Your task to perform on an android device: set the stopwatch Image 0: 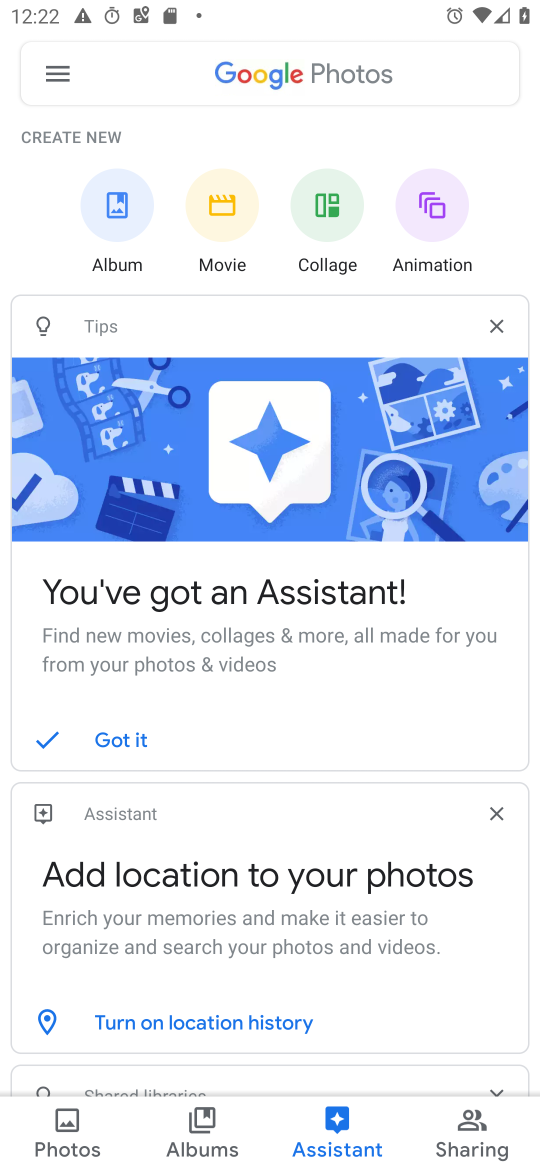
Step 0: press home button
Your task to perform on an android device: set the stopwatch Image 1: 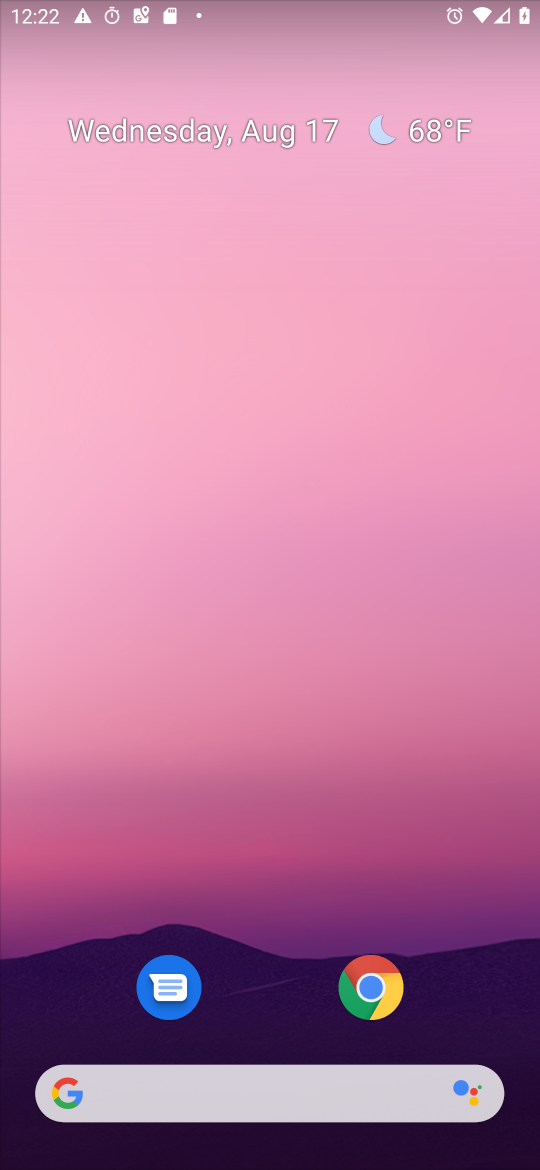
Step 1: drag from (19, 1138) to (410, 404)
Your task to perform on an android device: set the stopwatch Image 2: 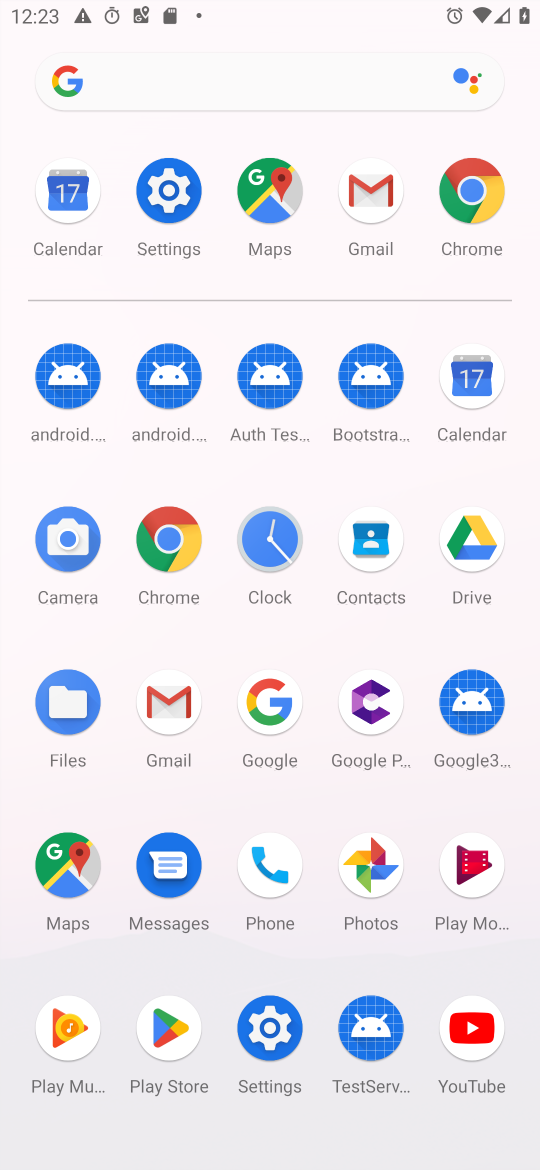
Step 2: click (260, 530)
Your task to perform on an android device: set the stopwatch Image 3: 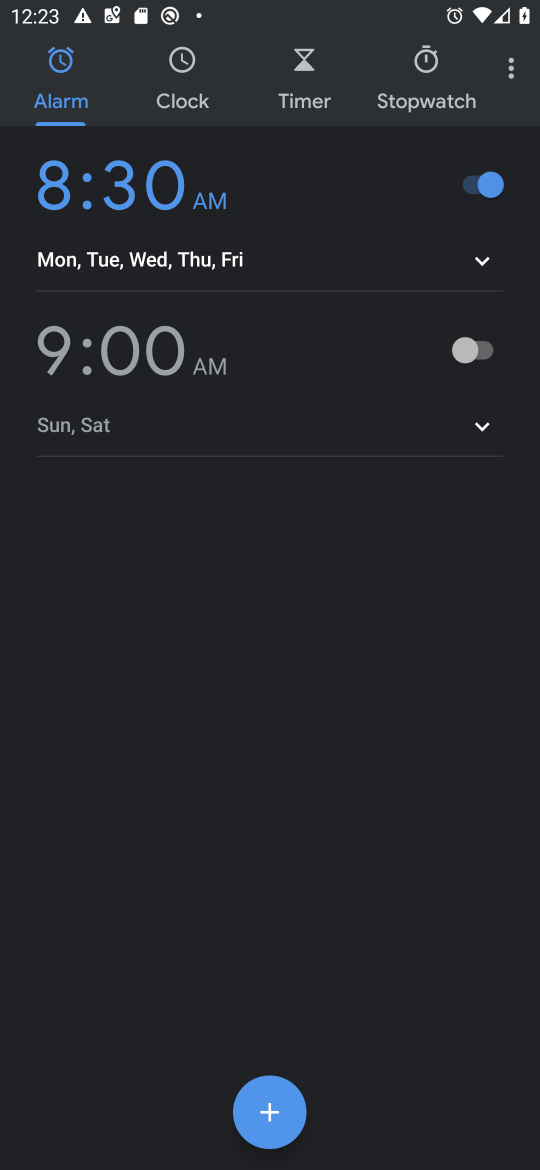
Step 3: click (386, 89)
Your task to perform on an android device: set the stopwatch Image 4: 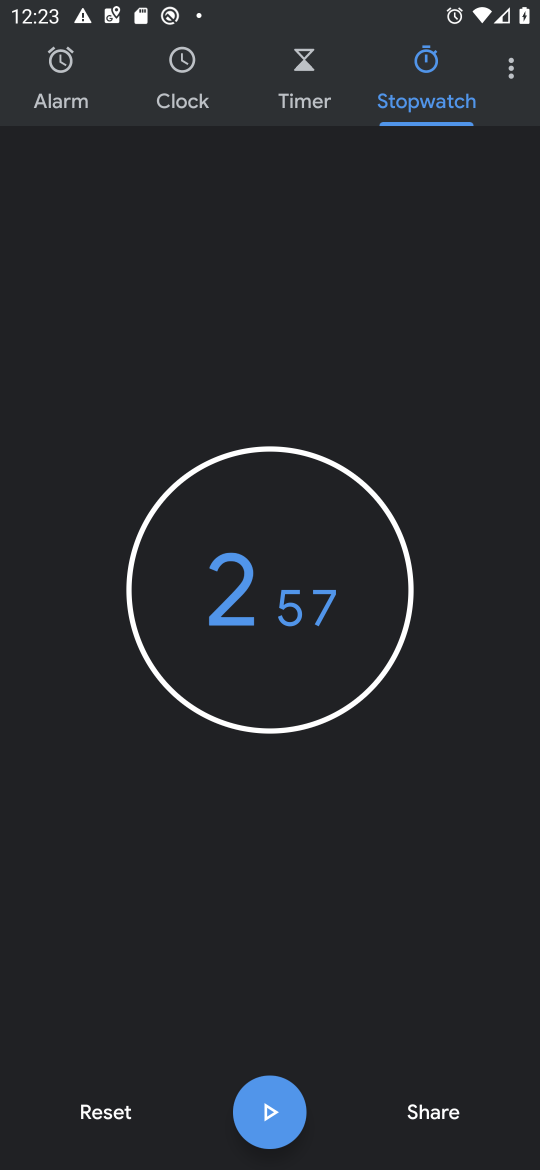
Step 4: click (273, 1098)
Your task to perform on an android device: set the stopwatch Image 5: 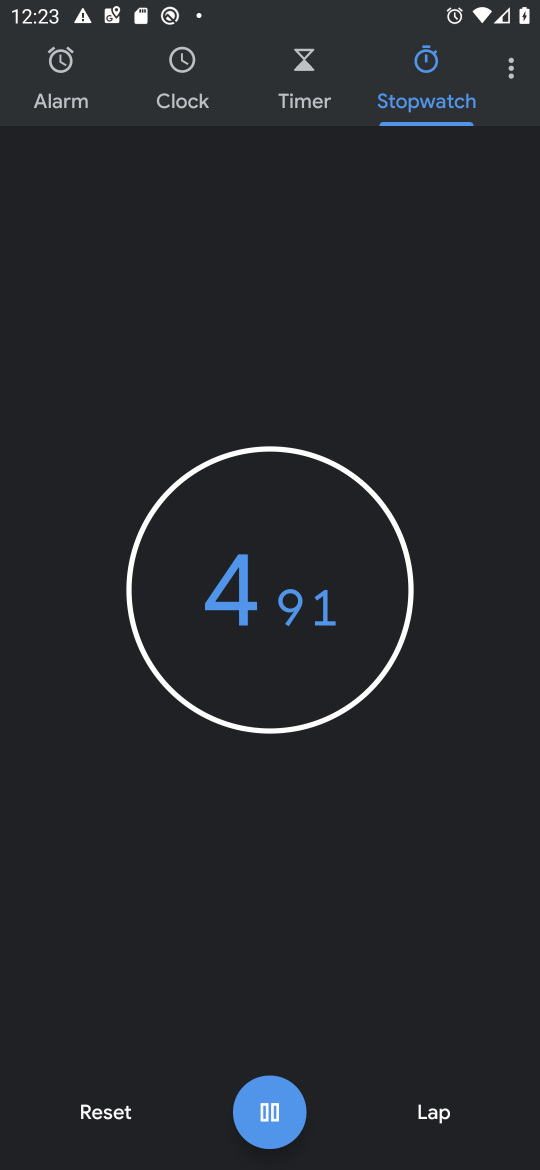
Step 5: click (277, 1124)
Your task to perform on an android device: set the stopwatch Image 6: 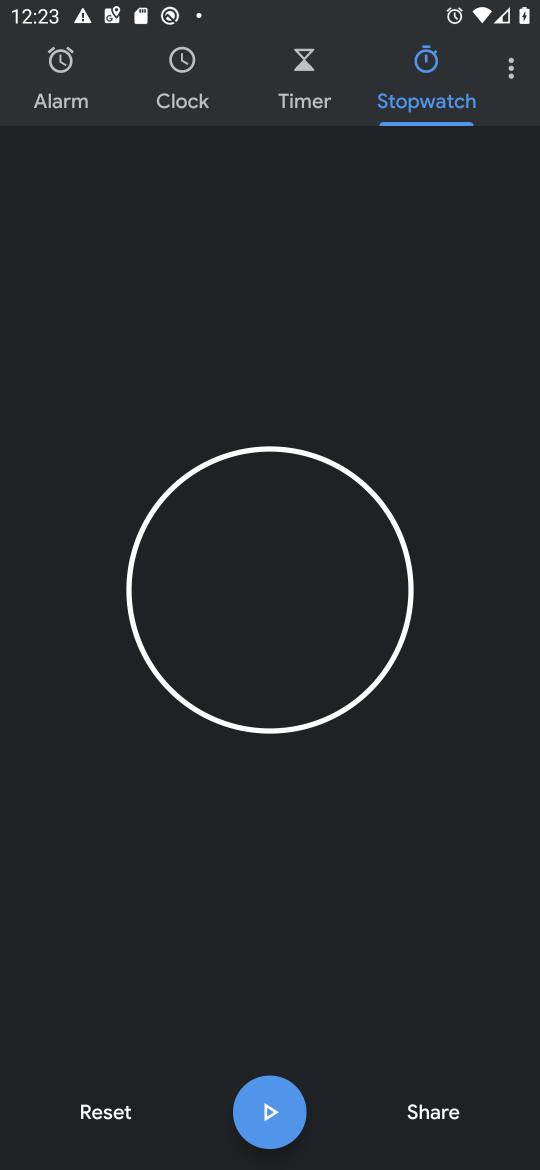
Step 6: task complete